Your task to perform on an android device: Turn off the flashlight Image 0: 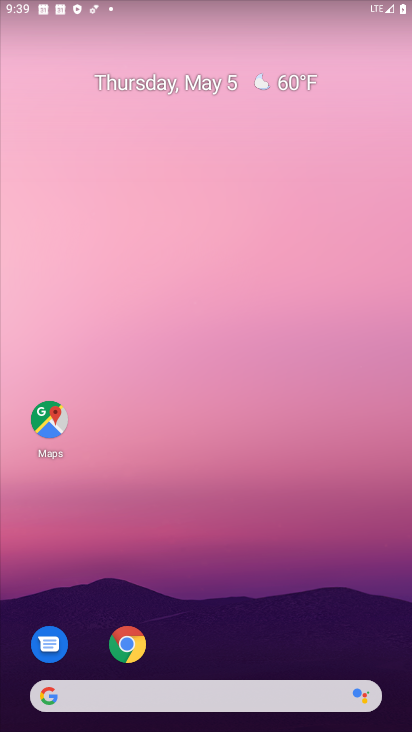
Step 0: drag from (189, 633) to (226, 6)
Your task to perform on an android device: Turn off the flashlight Image 1: 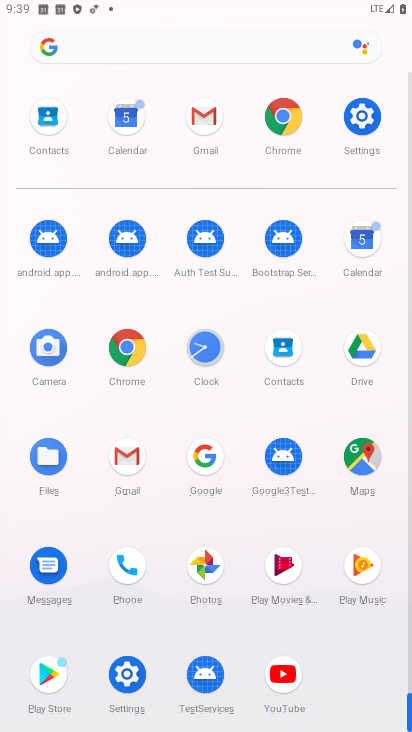
Step 1: click (357, 121)
Your task to perform on an android device: Turn off the flashlight Image 2: 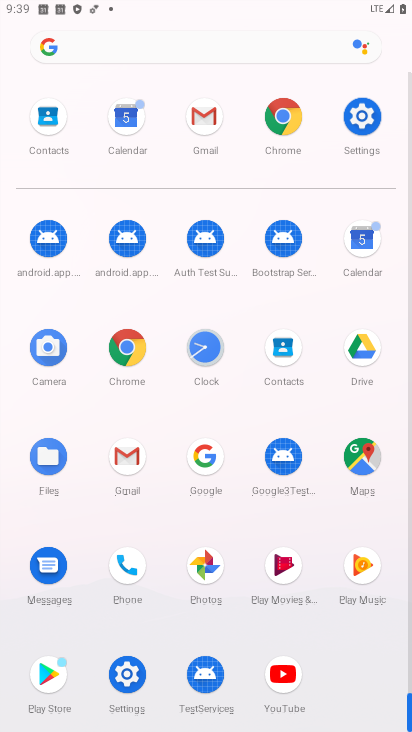
Step 2: click (357, 120)
Your task to perform on an android device: Turn off the flashlight Image 3: 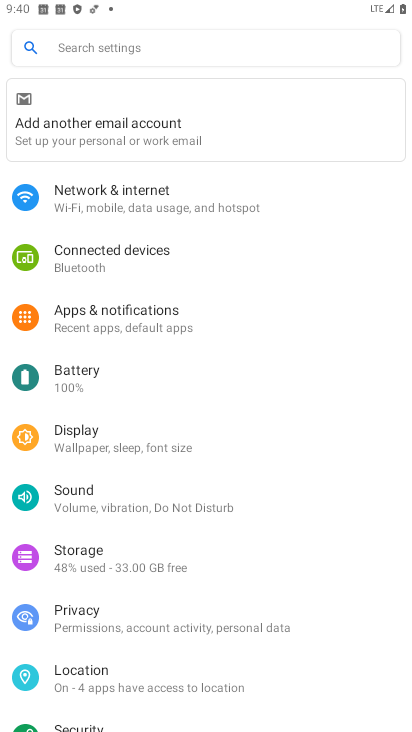
Step 3: click (140, 45)
Your task to perform on an android device: Turn off the flashlight Image 4: 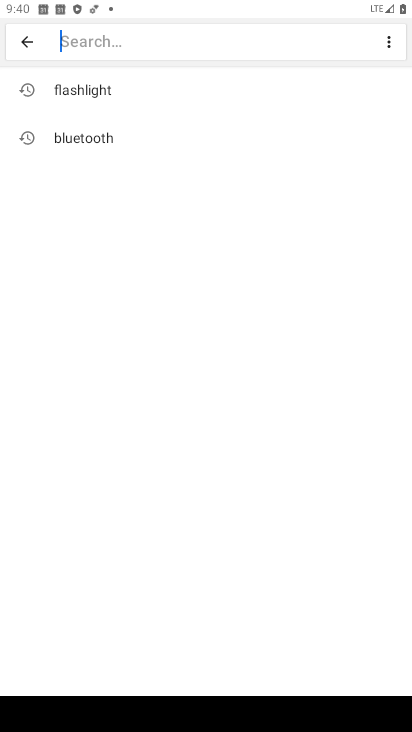
Step 4: click (93, 81)
Your task to perform on an android device: Turn off the flashlight Image 5: 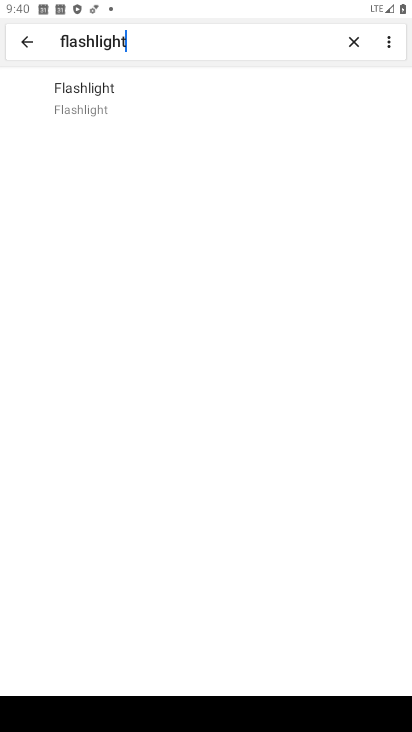
Step 5: click (116, 81)
Your task to perform on an android device: Turn off the flashlight Image 6: 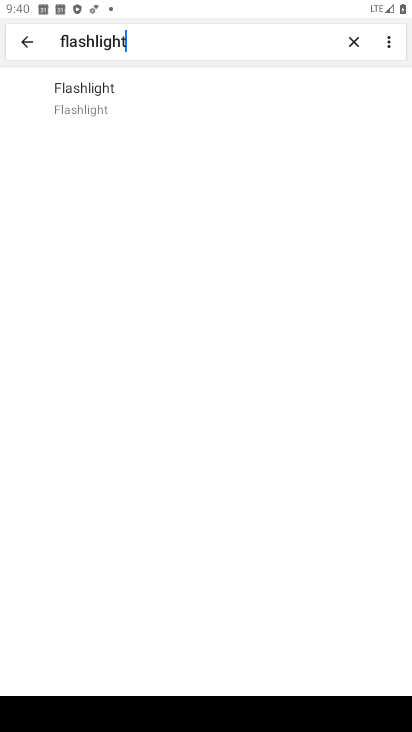
Step 6: click (141, 89)
Your task to perform on an android device: Turn off the flashlight Image 7: 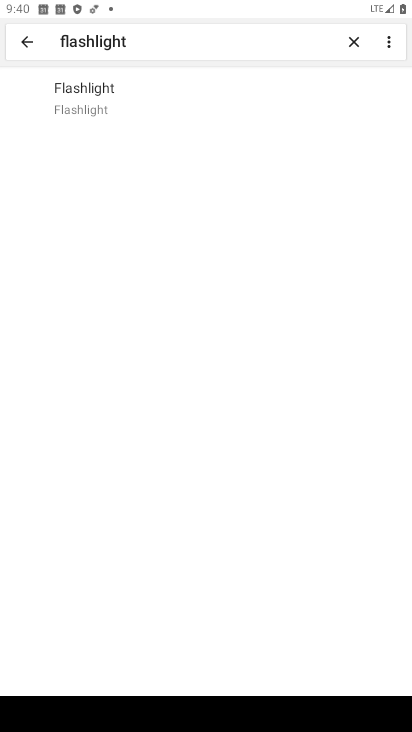
Step 7: click (141, 89)
Your task to perform on an android device: Turn off the flashlight Image 8: 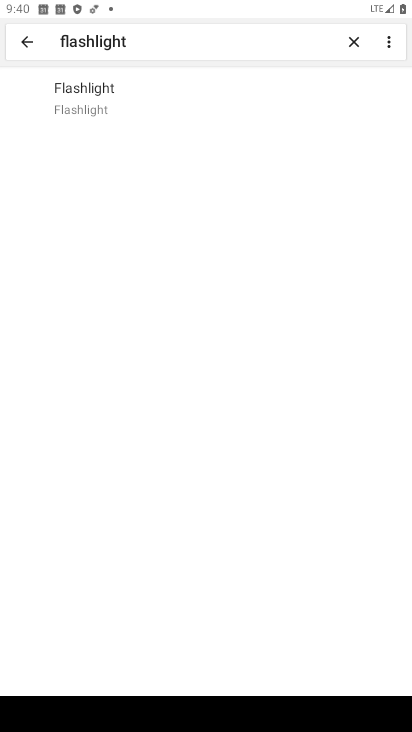
Step 8: click (159, 106)
Your task to perform on an android device: Turn off the flashlight Image 9: 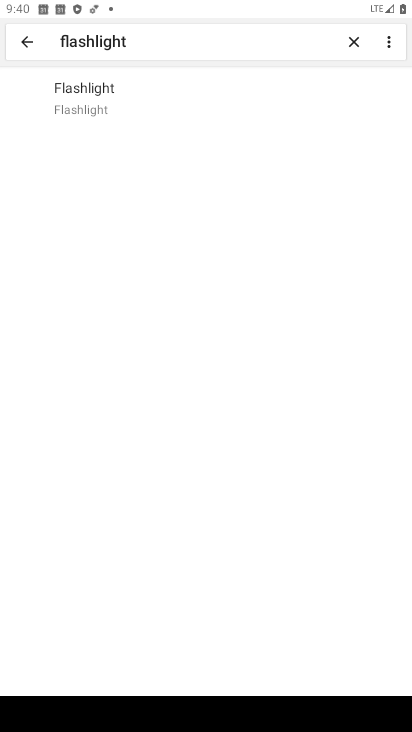
Step 9: click (126, 100)
Your task to perform on an android device: Turn off the flashlight Image 10: 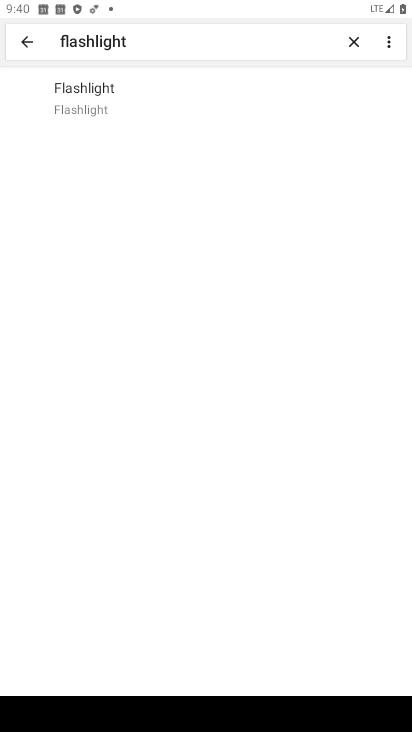
Step 10: click (126, 100)
Your task to perform on an android device: Turn off the flashlight Image 11: 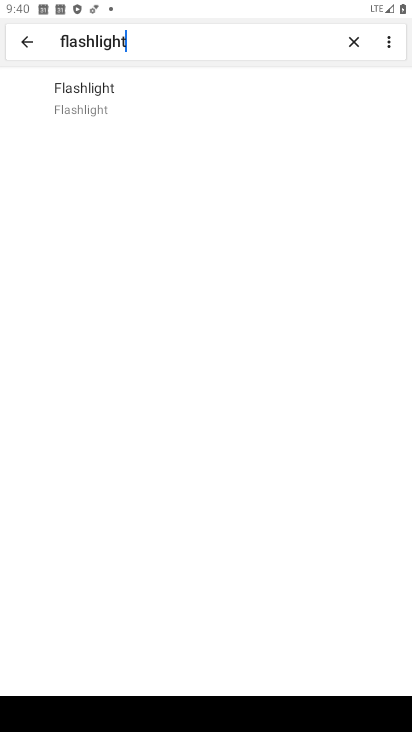
Step 11: task complete